Your task to perform on an android device: What's the weather going to be tomorrow? Image 0: 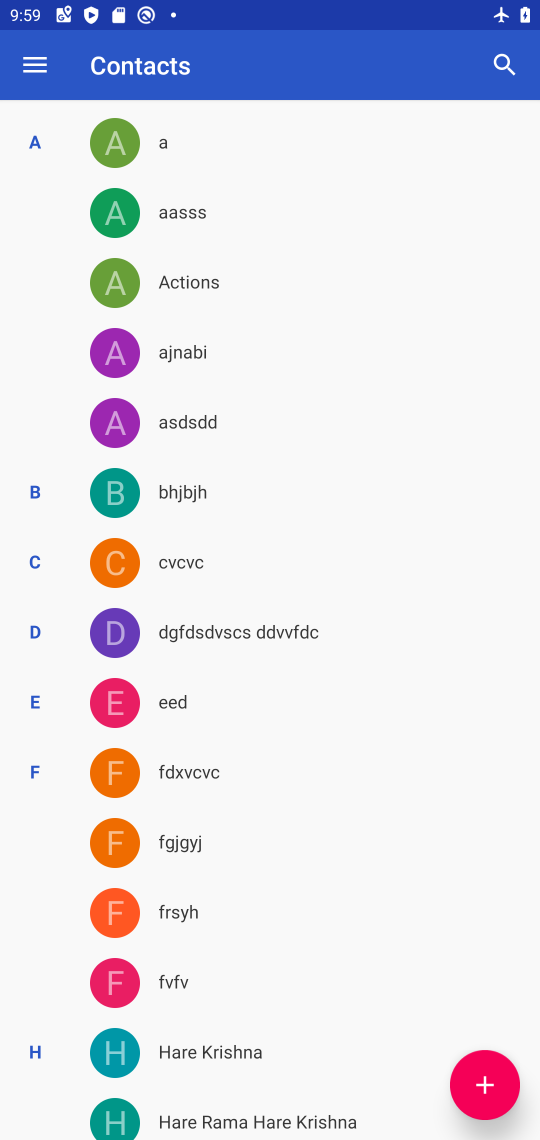
Step 0: press back button
Your task to perform on an android device: What's the weather going to be tomorrow? Image 1: 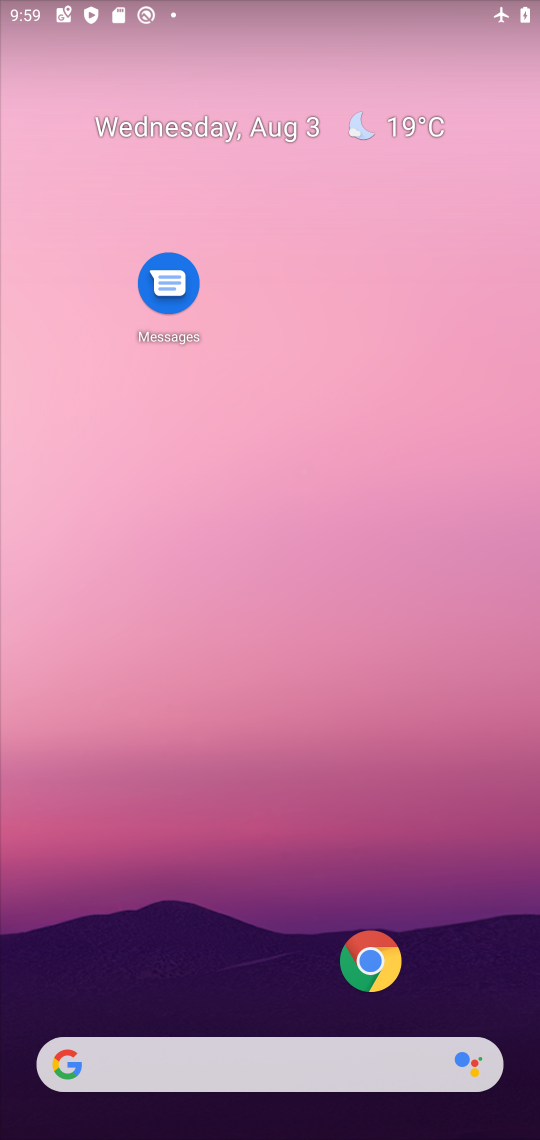
Step 1: click (282, 1063)
Your task to perform on an android device: What's the weather going to be tomorrow? Image 2: 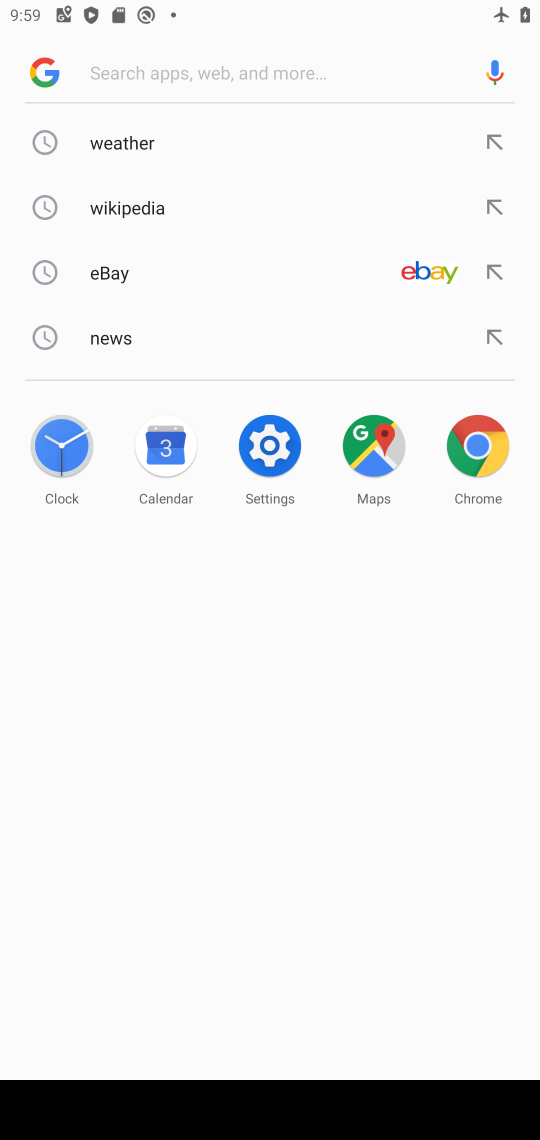
Step 2: click (117, 144)
Your task to perform on an android device: What's the weather going to be tomorrow? Image 3: 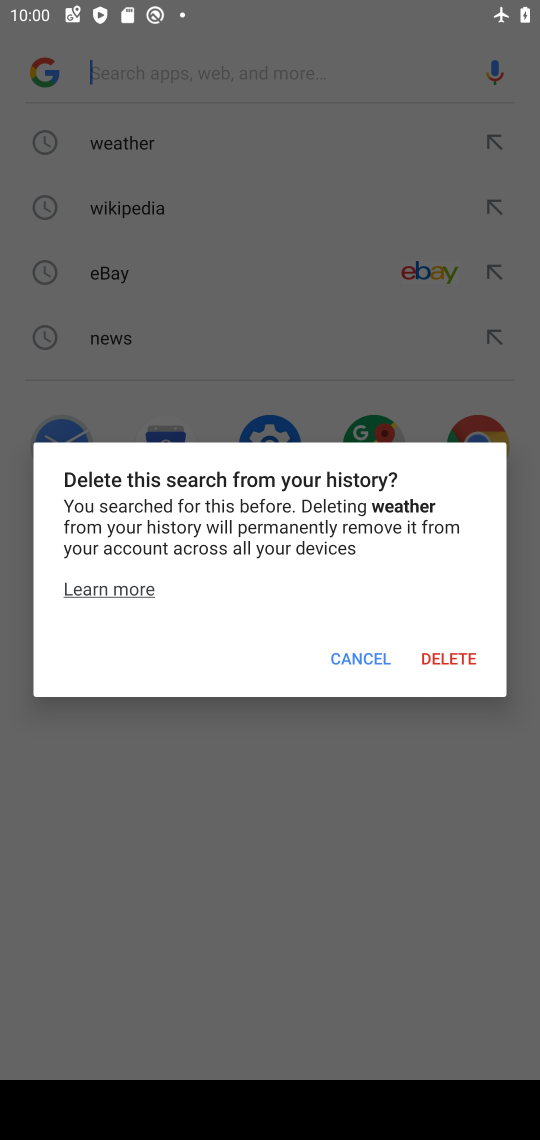
Step 3: click (347, 651)
Your task to perform on an android device: What's the weather going to be tomorrow? Image 4: 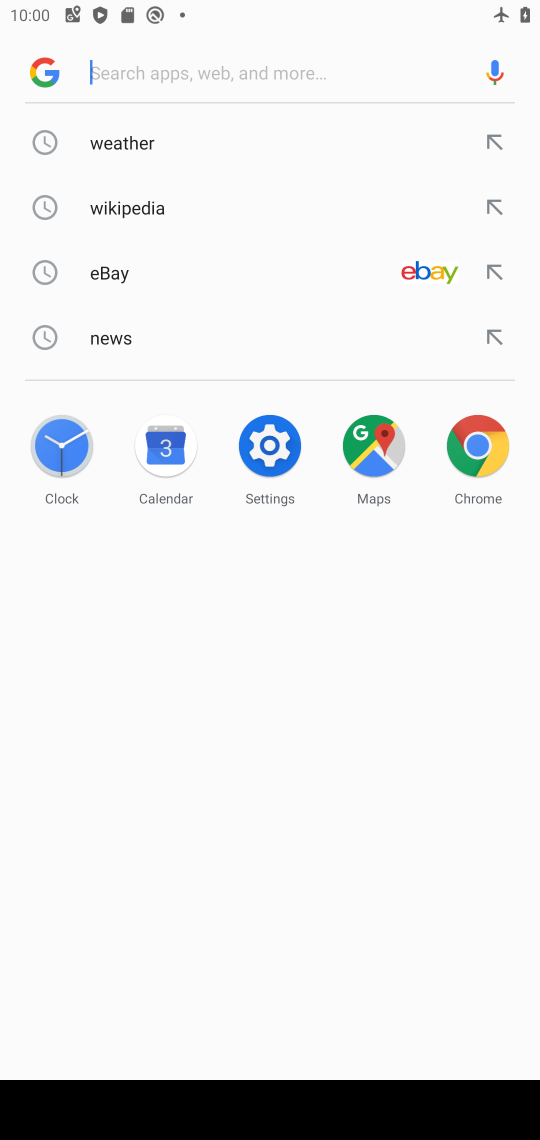
Step 4: click (126, 157)
Your task to perform on an android device: What's the weather going to be tomorrow? Image 5: 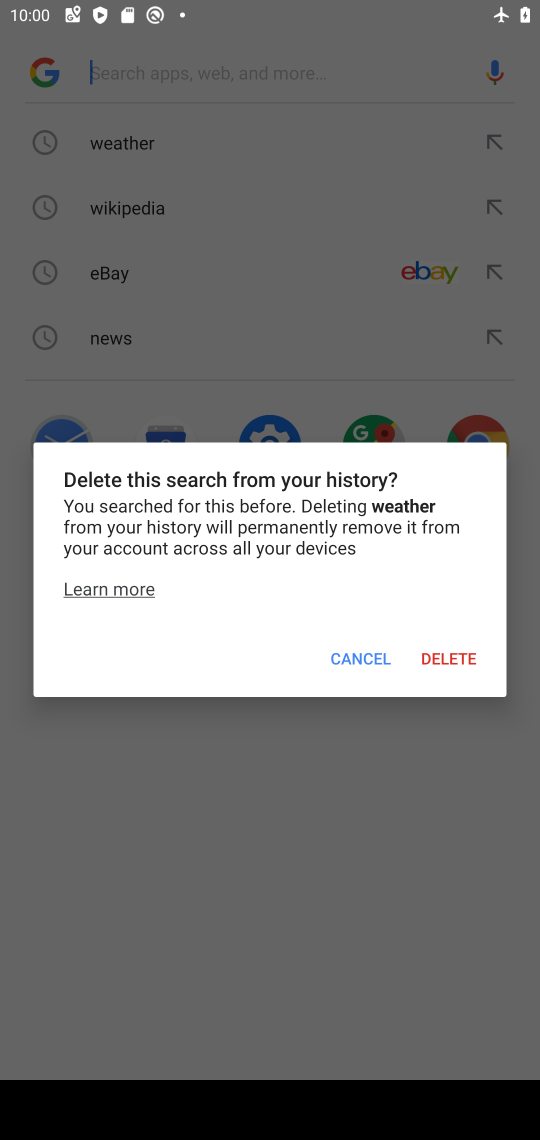
Step 5: click (299, 668)
Your task to perform on an android device: What's the weather going to be tomorrow? Image 6: 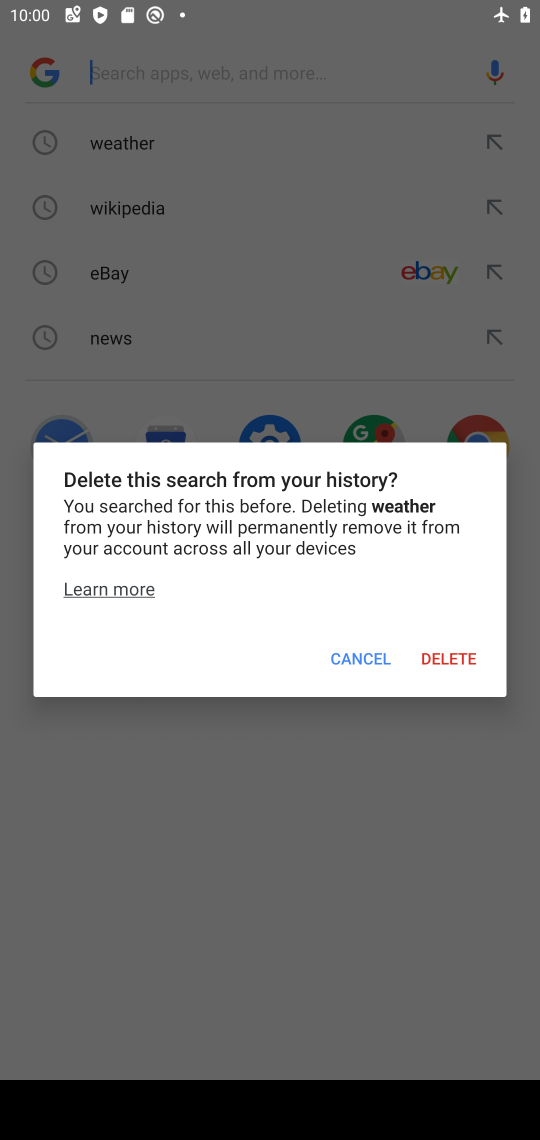
Step 6: task complete